Your task to perform on an android device: Go to settings Image 0: 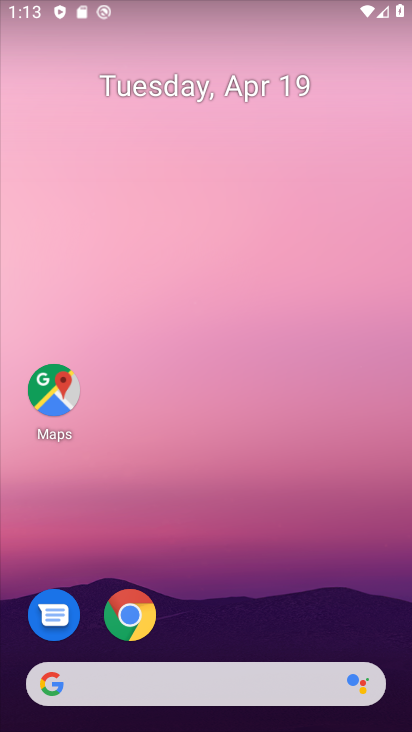
Step 0: drag from (124, 326) to (411, 448)
Your task to perform on an android device: Go to settings Image 1: 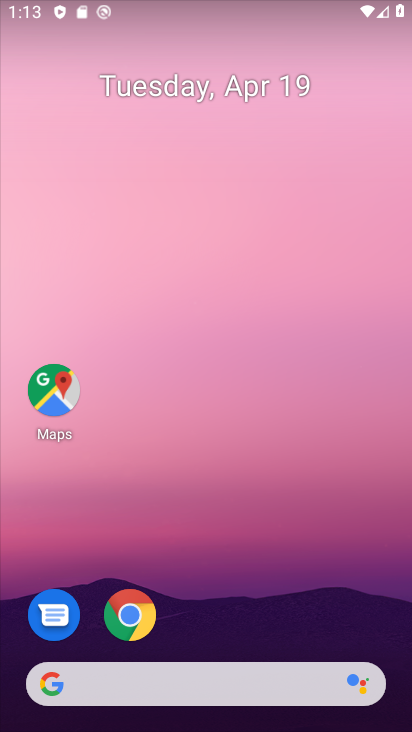
Step 1: drag from (243, 623) to (264, 8)
Your task to perform on an android device: Go to settings Image 2: 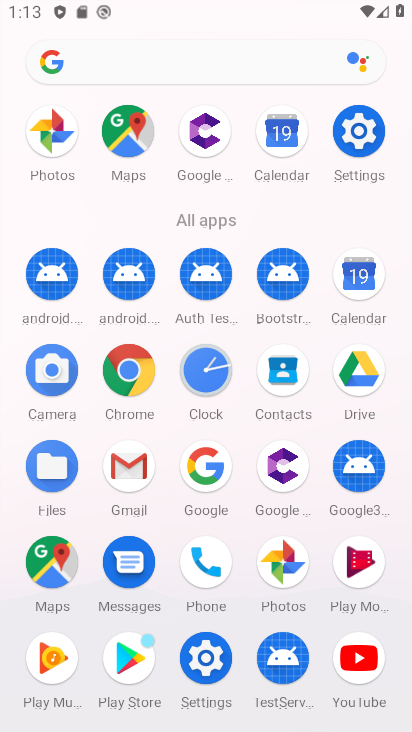
Step 2: click (359, 131)
Your task to perform on an android device: Go to settings Image 3: 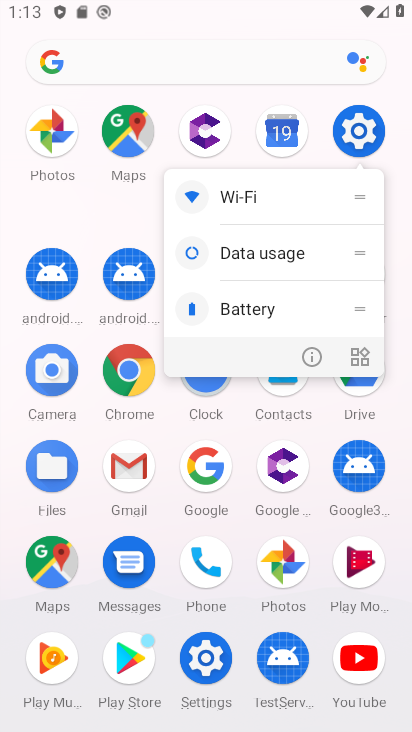
Step 3: click (359, 131)
Your task to perform on an android device: Go to settings Image 4: 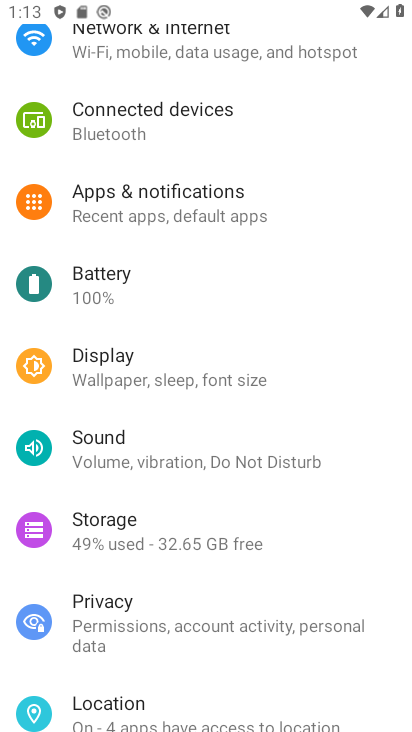
Step 4: task complete